Your task to perform on an android device: toggle notification dots Image 0: 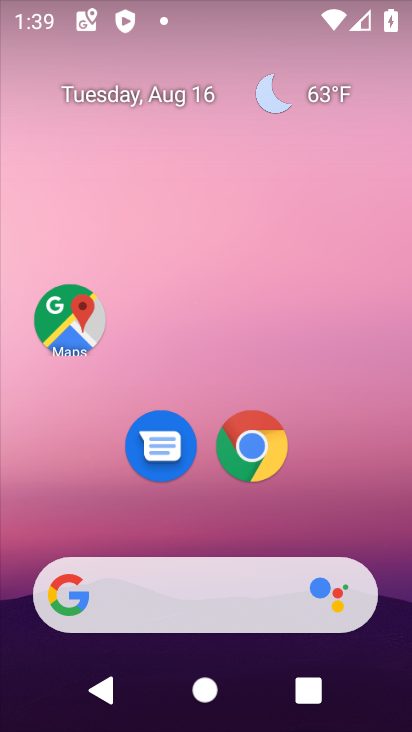
Step 0: press home button
Your task to perform on an android device: toggle notification dots Image 1: 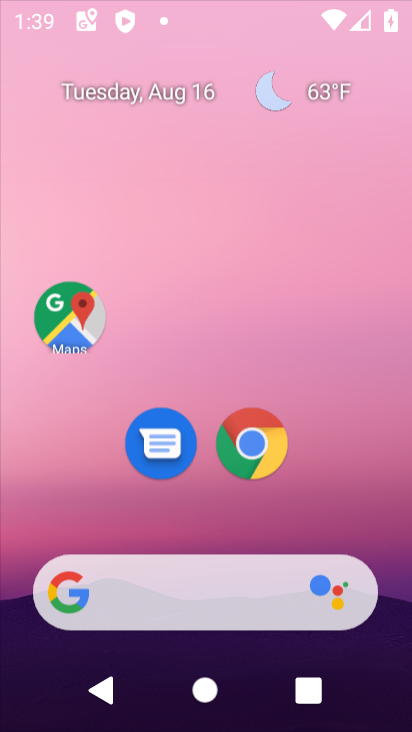
Step 1: drag from (208, 536) to (216, 154)
Your task to perform on an android device: toggle notification dots Image 2: 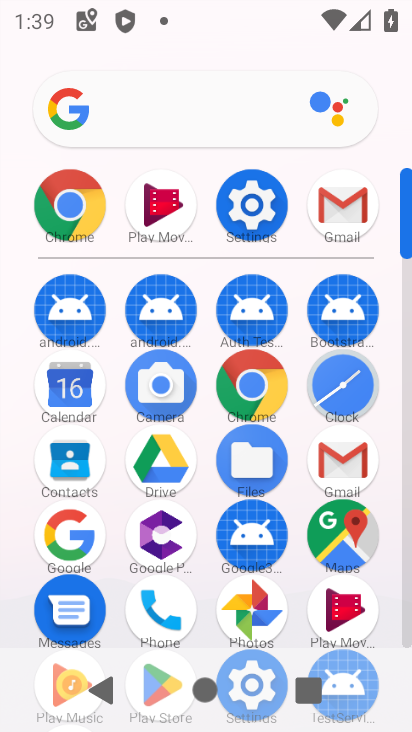
Step 2: click (253, 195)
Your task to perform on an android device: toggle notification dots Image 3: 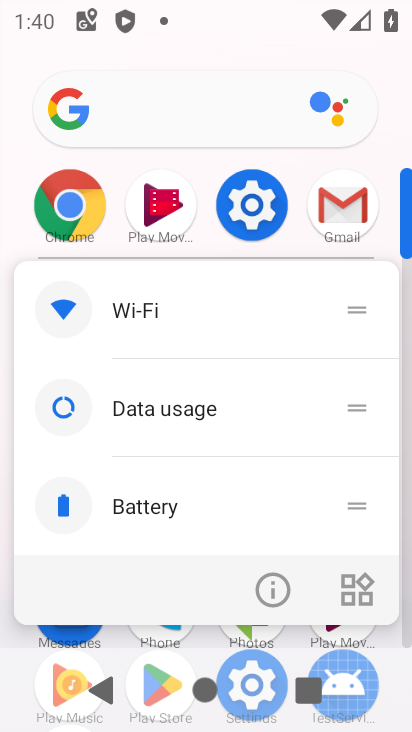
Step 3: click (253, 195)
Your task to perform on an android device: toggle notification dots Image 4: 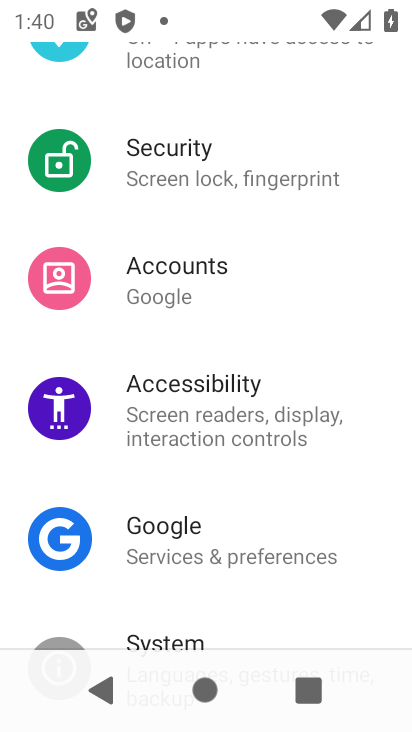
Step 4: drag from (210, 76) to (164, 729)
Your task to perform on an android device: toggle notification dots Image 5: 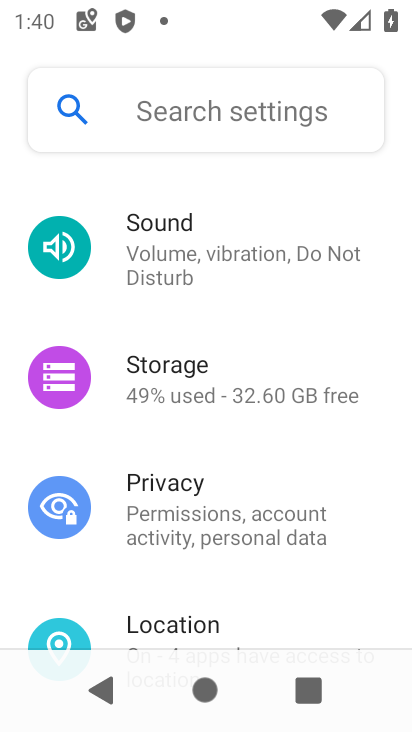
Step 5: drag from (126, 170) to (150, 661)
Your task to perform on an android device: toggle notification dots Image 6: 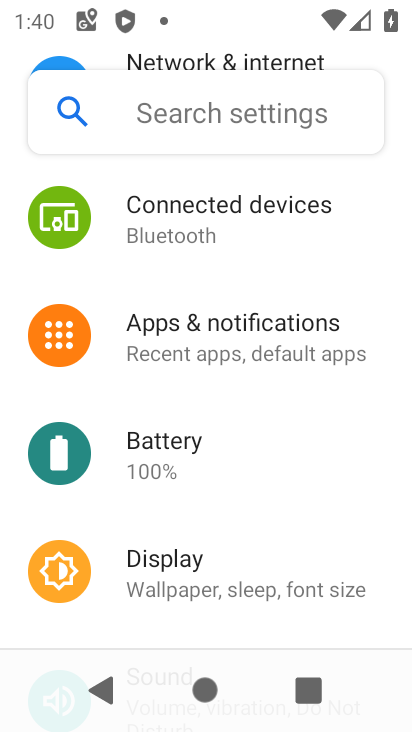
Step 6: click (114, 330)
Your task to perform on an android device: toggle notification dots Image 7: 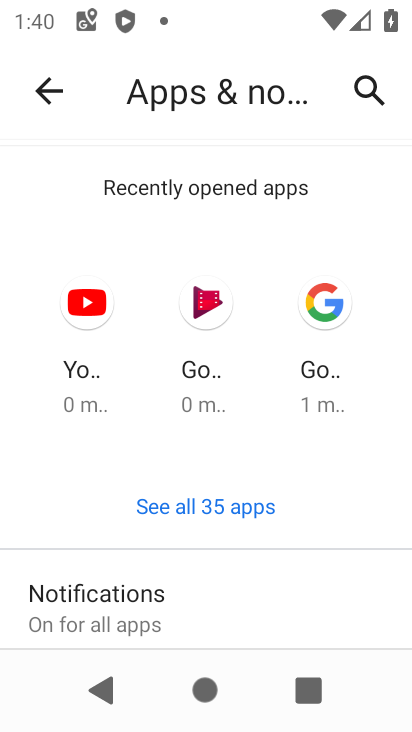
Step 7: click (169, 598)
Your task to perform on an android device: toggle notification dots Image 8: 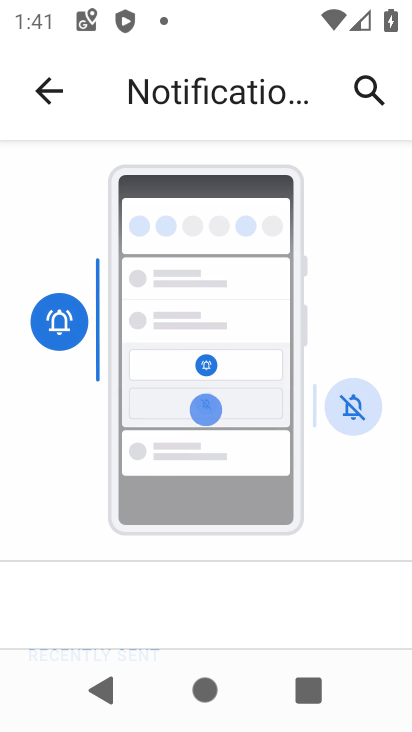
Step 8: drag from (245, 598) to (286, 62)
Your task to perform on an android device: toggle notification dots Image 9: 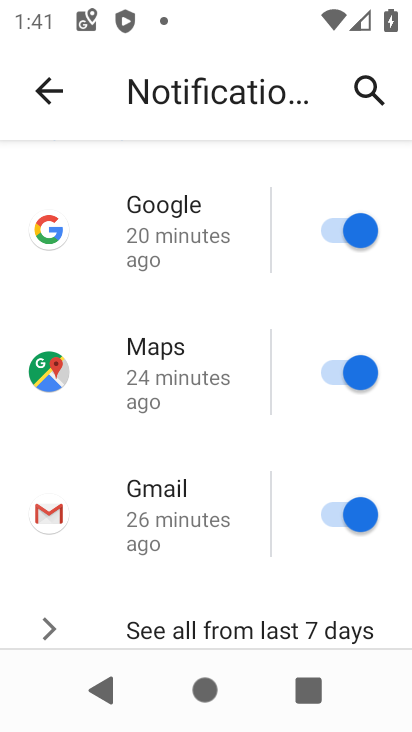
Step 9: drag from (206, 613) to (233, 11)
Your task to perform on an android device: toggle notification dots Image 10: 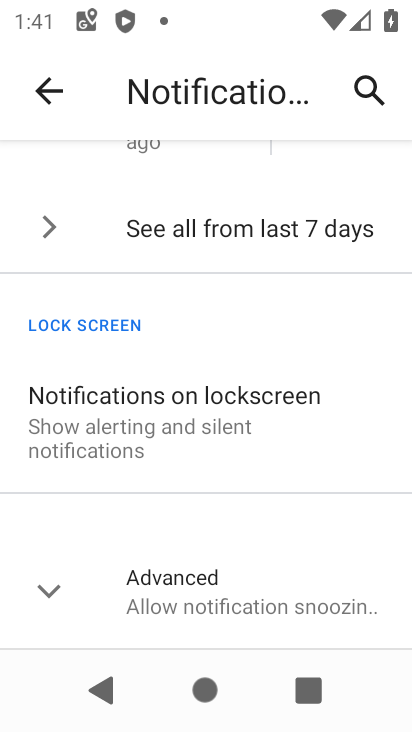
Step 10: click (53, 588)
Your task to perform on an android device: toggle notification dots Image 11: 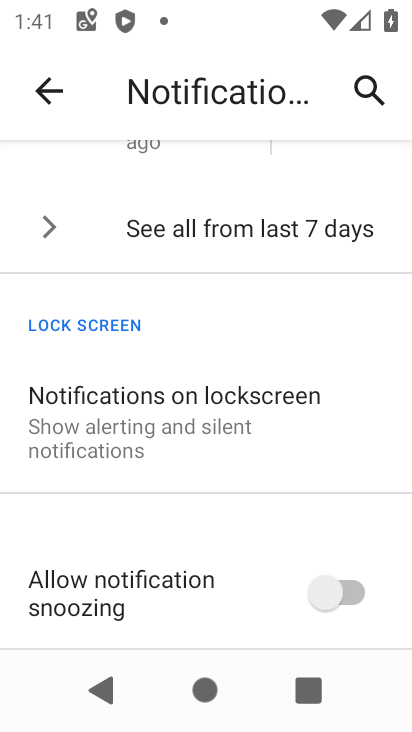
Step 11: drag from (231, 619) to (255, 92)
Your task to perform on an android device: toggle notification dots Image 12: 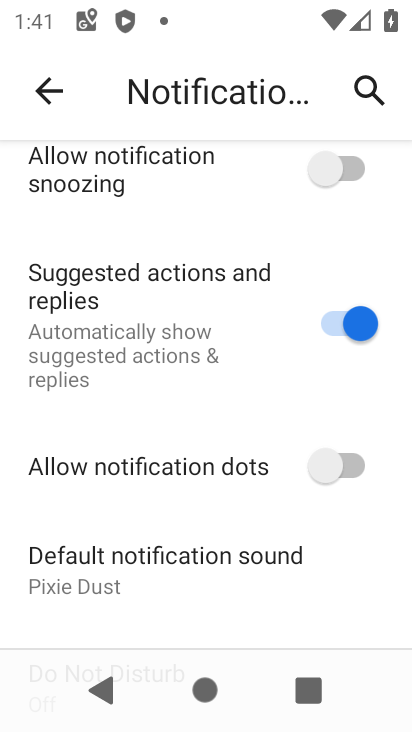
Step 12: click (346, 460)
Your task to perform on an android device: toggle notification dots Image 13: 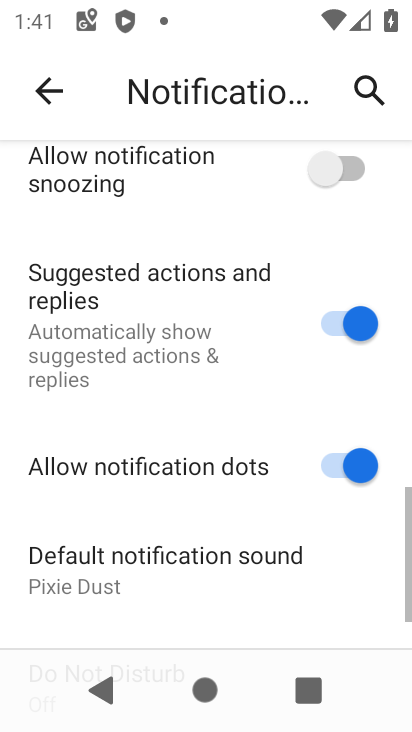
Step 13: task complete